Your task to perform on an android device: Open ESPN.com Image 0: 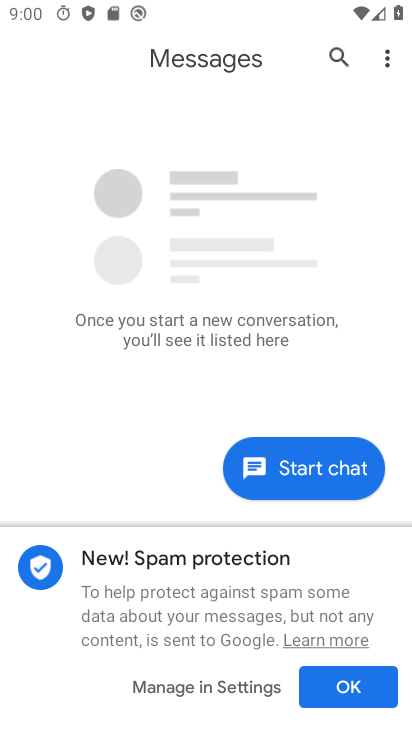
Step 0: press home button
Your task to perform on an android device: Open ESPN.com Image 1: 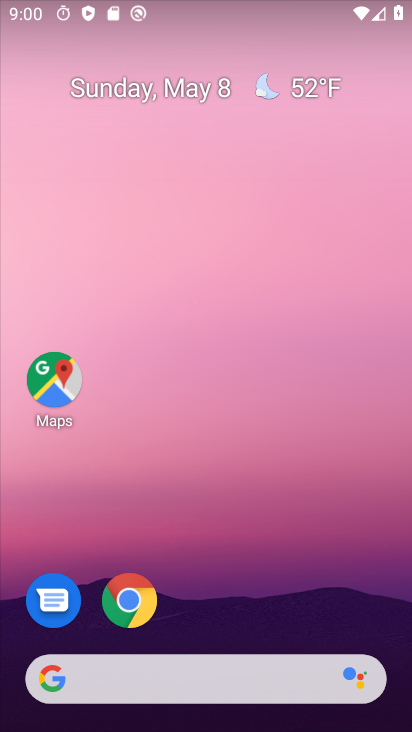
Step 1: click (105, 585)
Your task to perform on an android device: Open ESPN.com Image 2: 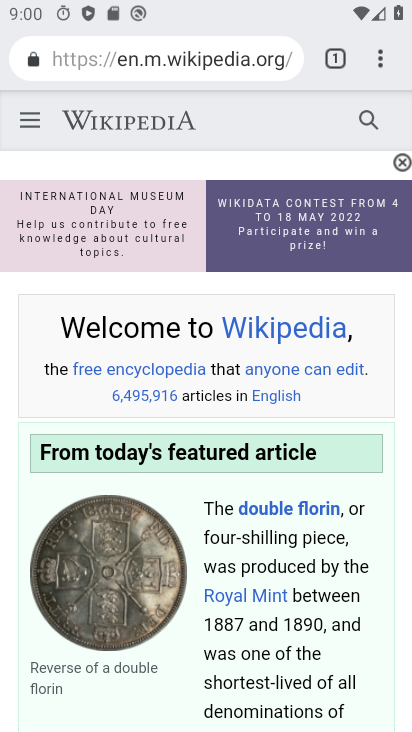
Step 2: click (249, 61)
Your task to perform on an android device: Open ESPN.com Image 3: 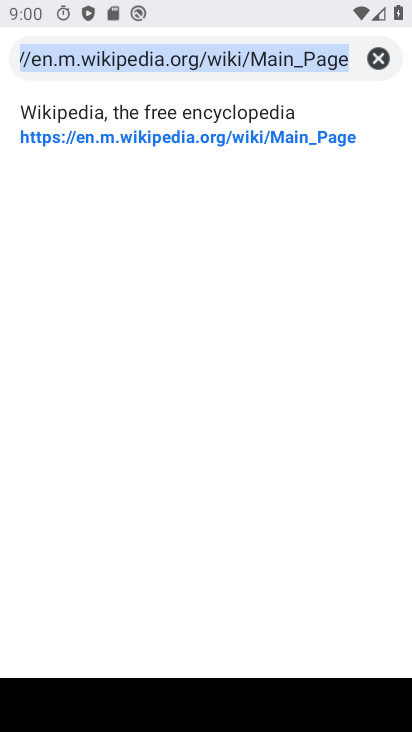
Step 3: type "ESPN.com"
Your task to perform on an android device: Open ESPN.com Image 4: 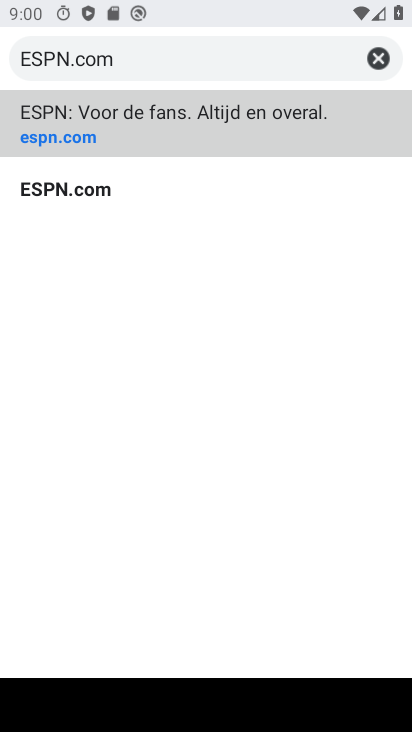
Step 4: click (91, 192)
Your task to perform on an android device: Open ESPN.com Image 5: 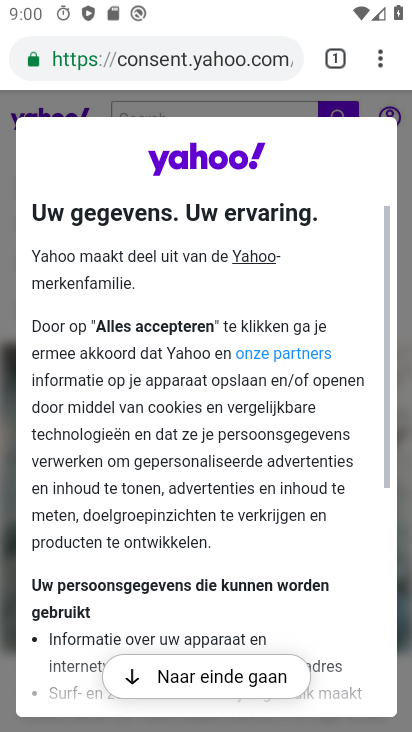
Step 5: task complete